Your task to perform on an android device: set default search engine in the chrome app Image 0: 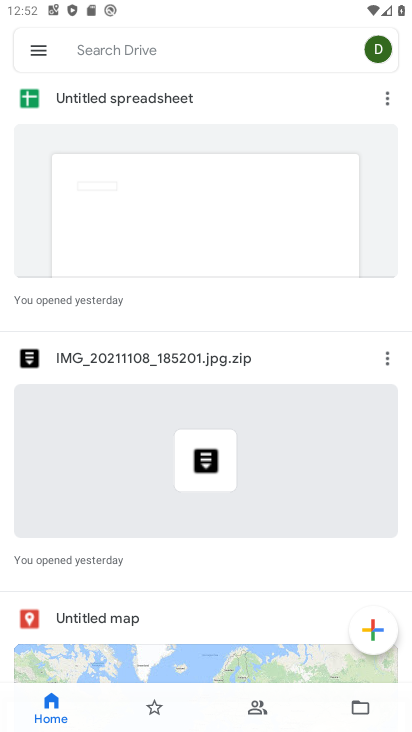
Step 0: press home button
Your task to perform on an android device: set default search engine in the chrome app Image 1: 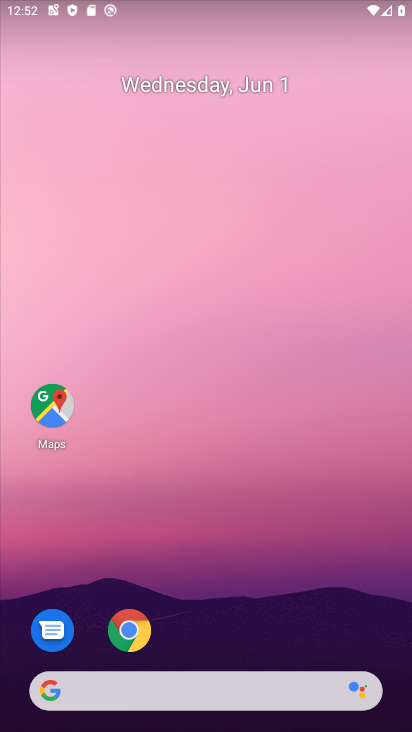
Step 1: click (127, 629)
Your task to perform on an android device: set default search engine in the chrome app Image 2: 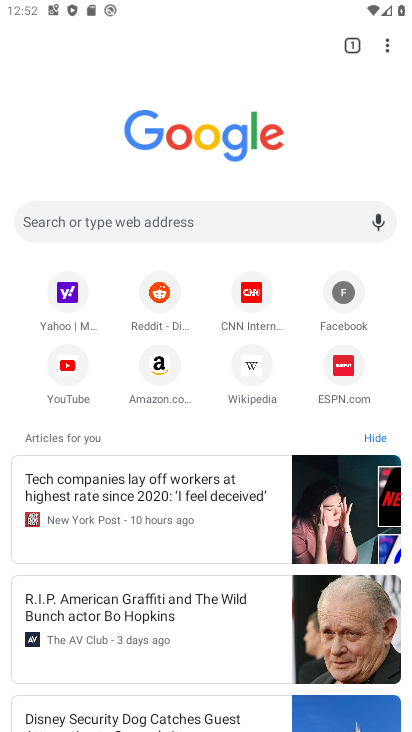
Step 2: drag from (388, 44) to (226, 393)
Your task to perform on an android device: set default search engine in the chrome app Image 3: 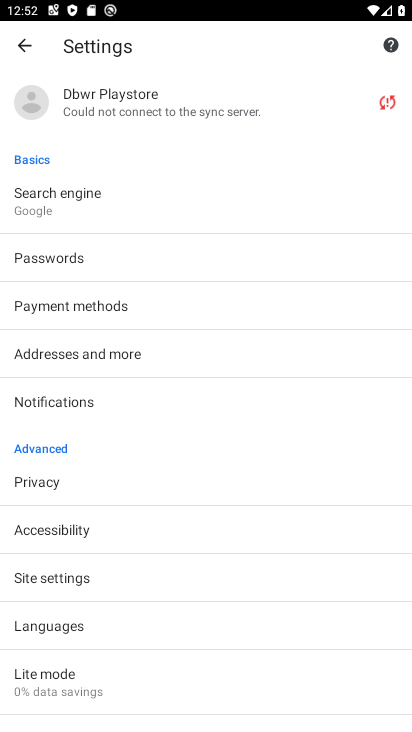
Step 3: click (56, 203)
Your task to perform on an android device: set default search engine in the chrome app Image 4: 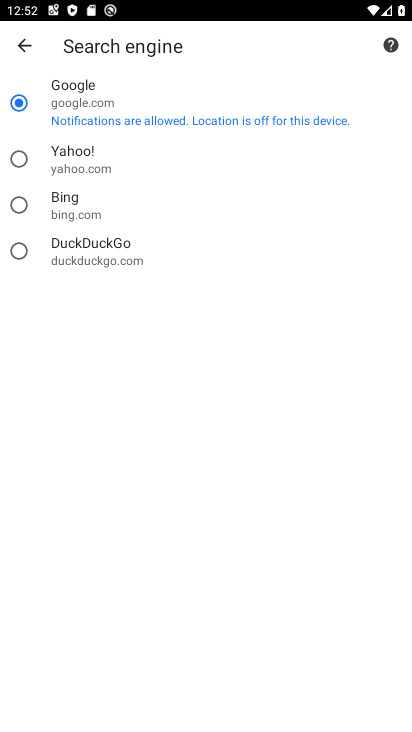
Step 4: task complete